Your task to perform on an android device: turn vacation reply on in the gmail app Image 0: 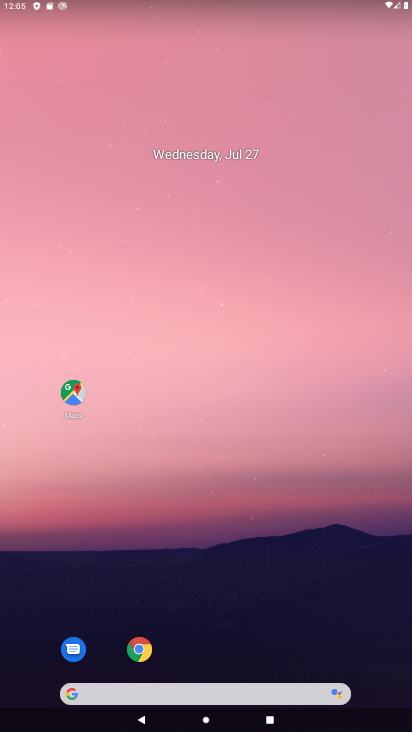
Step 0: drag from (206, 585) to (186, 142)
Your task to perform on an android device: turn vacation reply on in the gmail app Image 1: 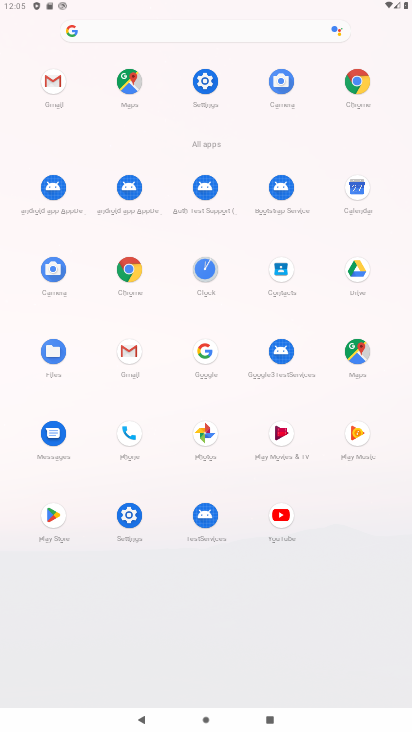
Step 1: click (51, 77)
Your task to perform on an android device: turn vacation reply on in the gmail app Image 2: 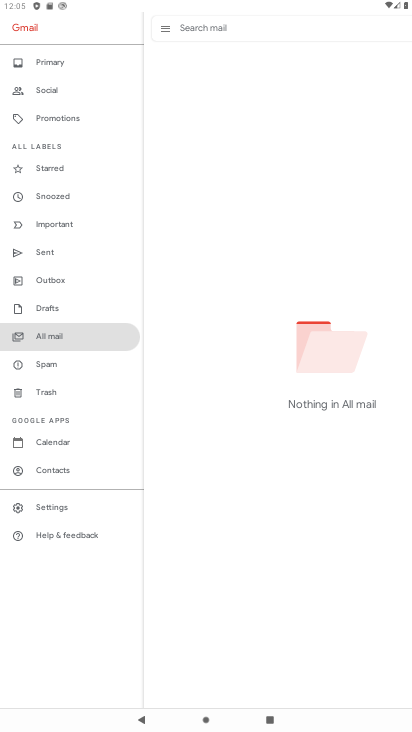
Step 2: click (41, 506)
Your task to perform on an android device: turn vacation reply on in the gmail app Image 3: 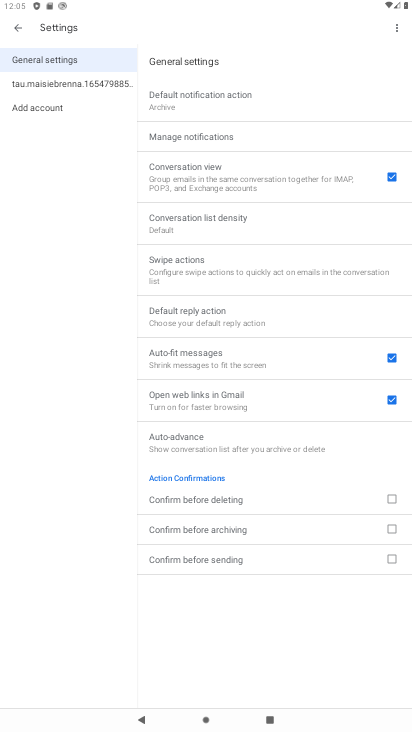
Step 3: click (52, 79)
Your task to perform on an android device: turn vacation reply on in the gmail app Image 4: 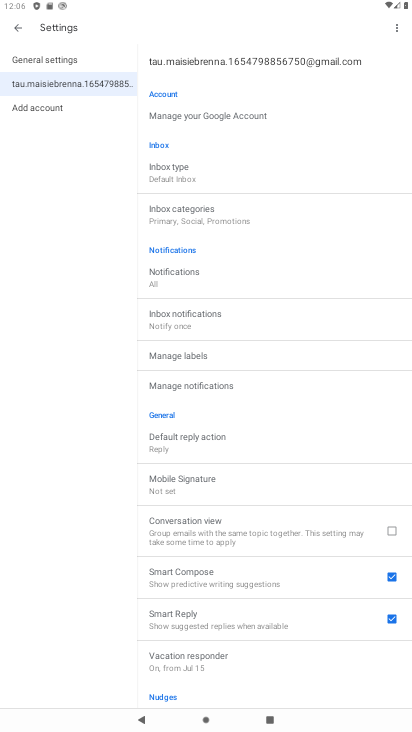
Step 4: click (185, 654)
Your task to perform on an android device: turn vacation reply on in the gmail app Image 5: 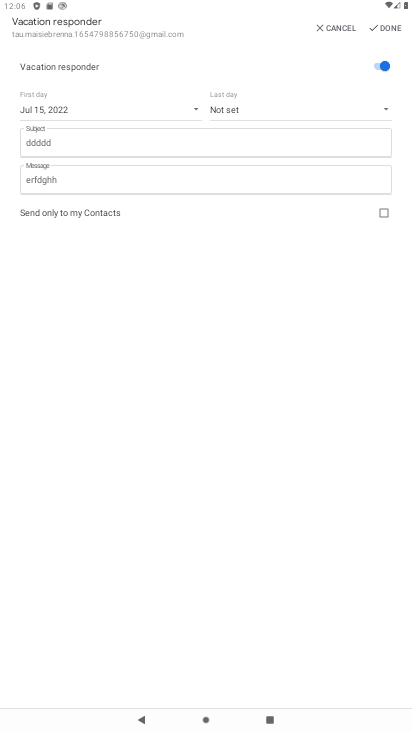
Step 5: task complete